Your task to perform on an android device: open chrome and create a bookmark for the current page Image 0: 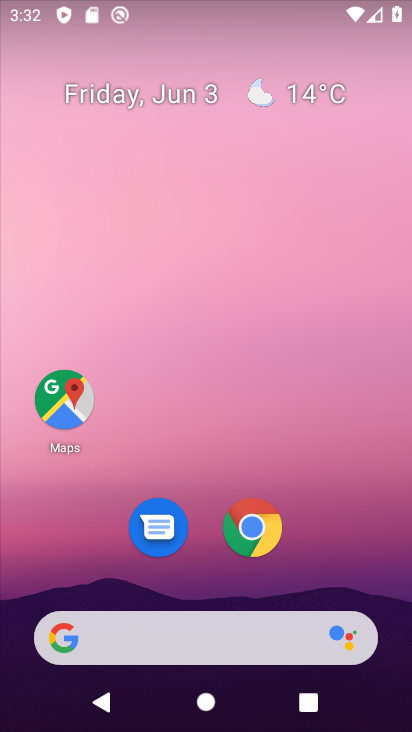
Step 0: click (249, 527)
Your task to perform on an android device: open chrome and create a bookmark for the current page Image 1: 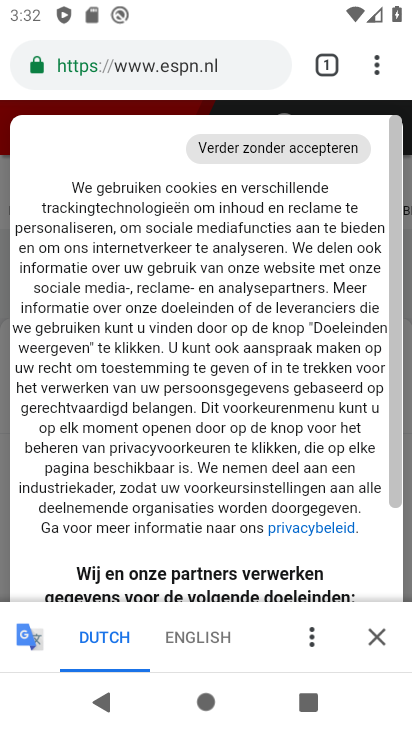
Step 1: click (377, 65)
Your task to perform on an android device: open chrome and create a bookmark for the current page Image 2: 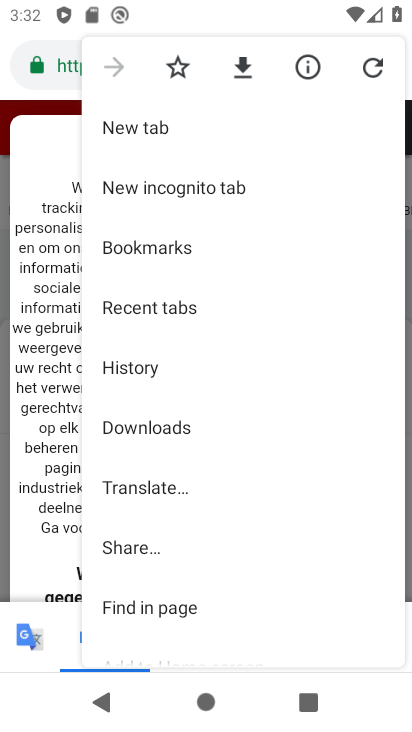
Step 2: click (178, 67)
Your task to perform on an android device: open chrome and create a bookmark for the current page Image 3: 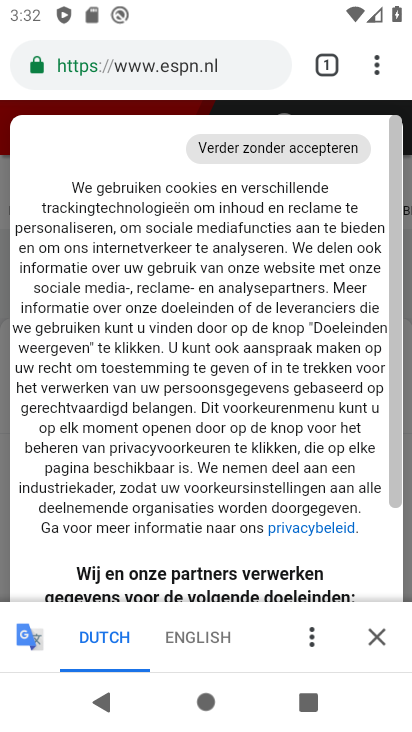
Step 3: task complete